Your task to perform on an android device: turn on wifi Image 0: 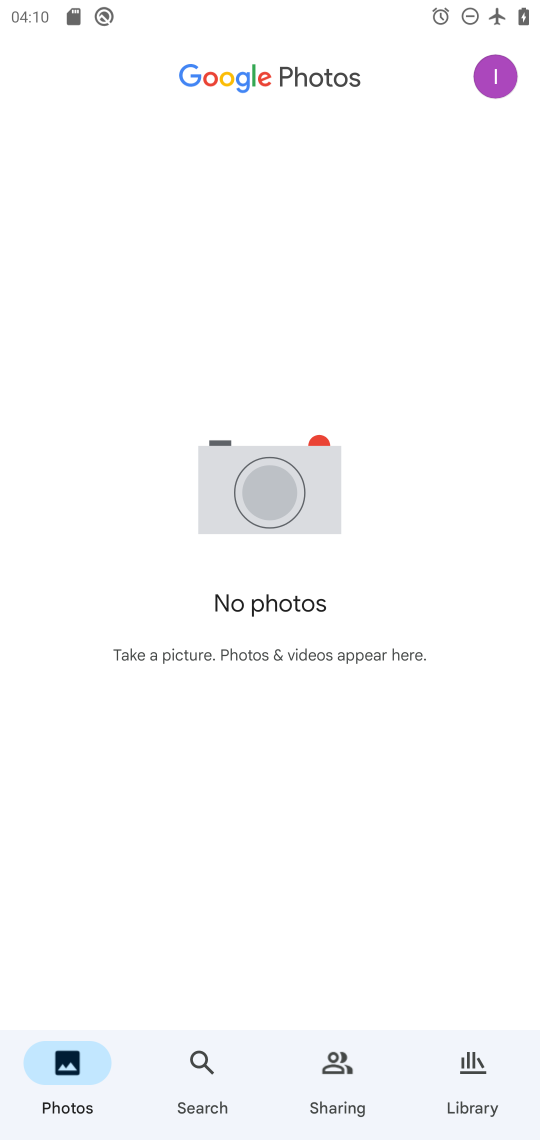
Step 0: press home button
Your task to perform on an android device: turn on wifi Image 1: 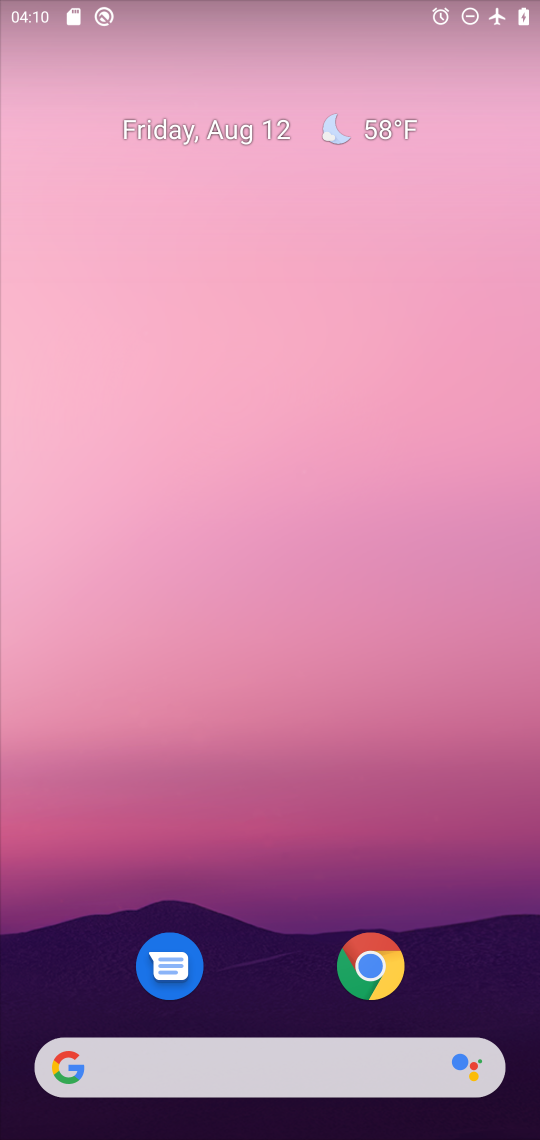
Step 1: drag from (263, 861) to (394, 107)
Your task to perform on an android device: turn on wifi Image 2: 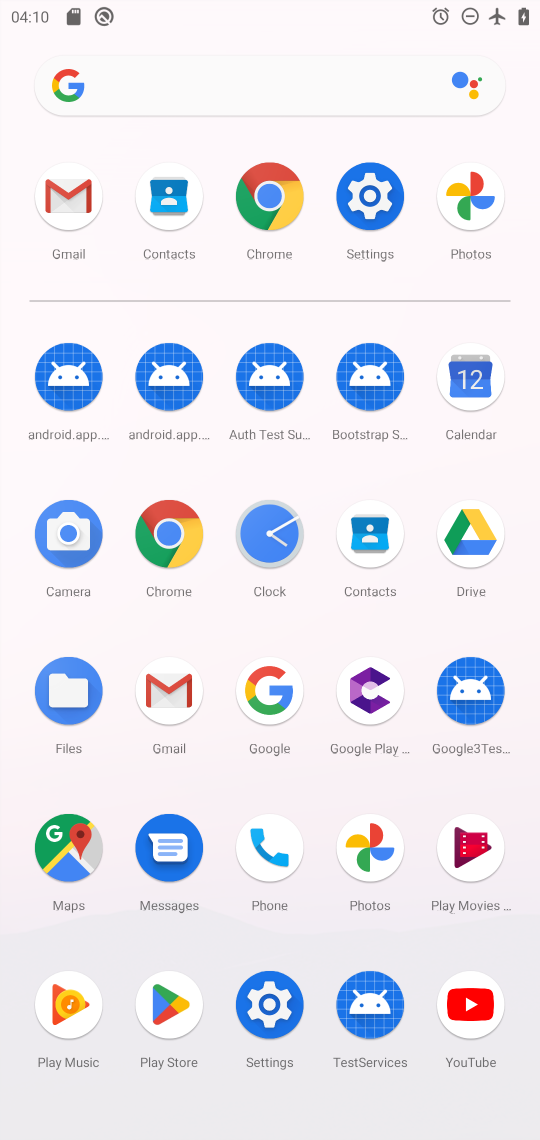
Step 2: click (373, 201)
Your task to perform on an android device: turn on wifi Image 3: 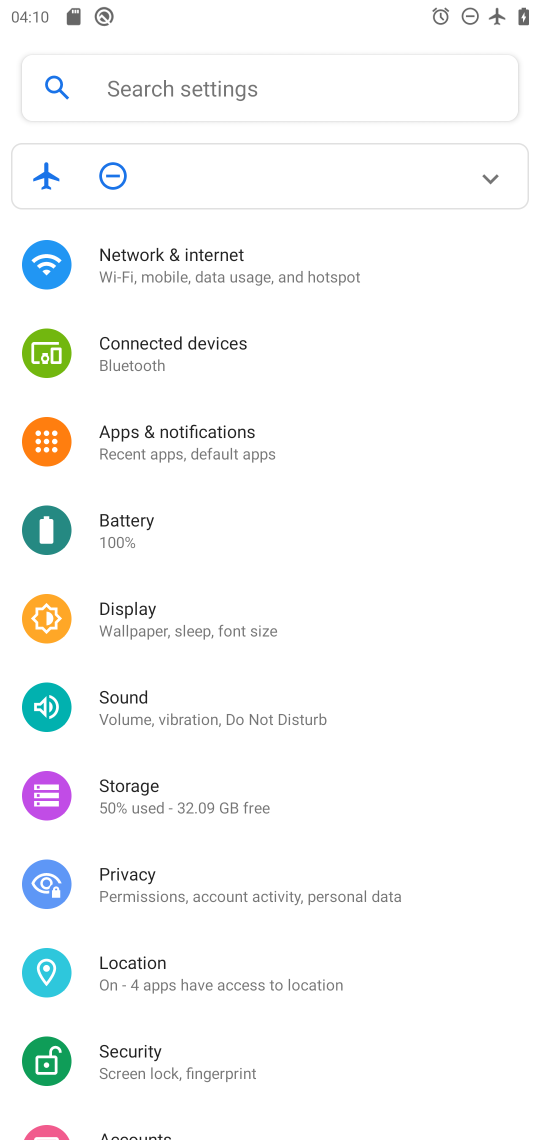
Step 3: click (139, 264)
Your task to perform on an android device: turn on wifi Image 4: 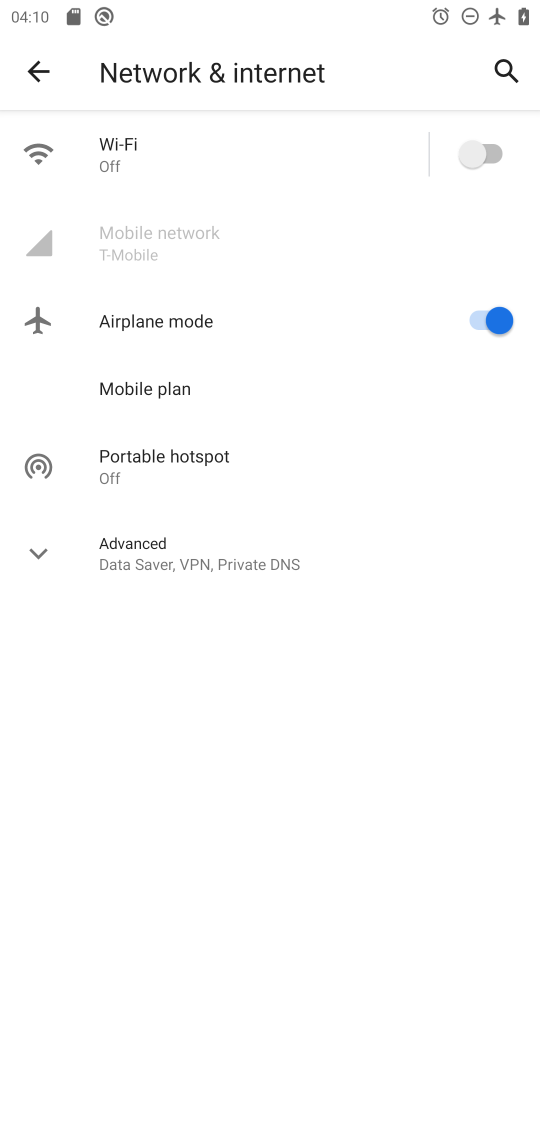
Step 4: task complete